Your task to perform on an android device: What's the weather going to be this weekend? Image 0: 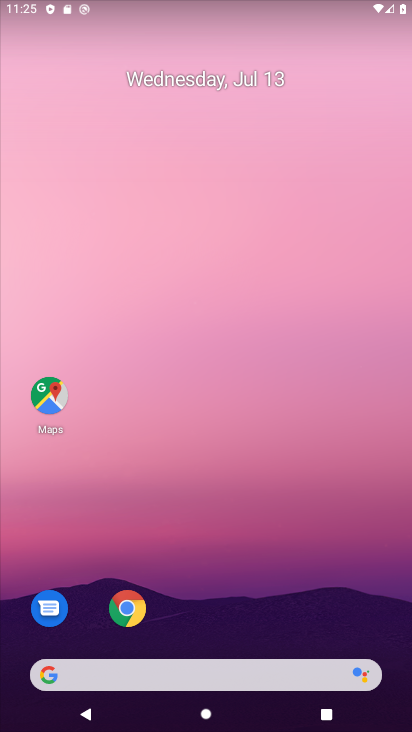
Step 0: click (161, 40)
Your task to perform on an android device: What's the weather going to be this weekend? Image 1: 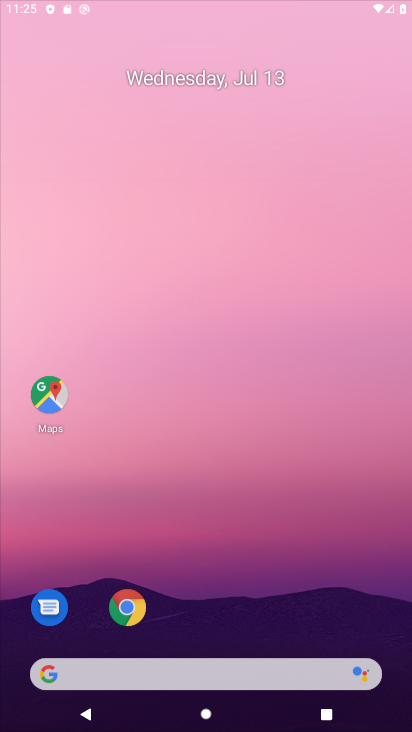
Step 1: drag from (187, 615) to (216, 95)
Your task to perform on an android device: What's the weather going to be this weekend? Image 2: 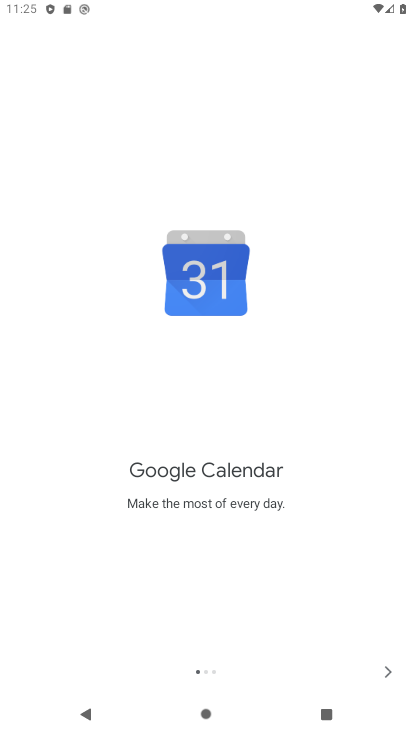
Step 2: press home button
Your task to perform on an android device: What's the weather going to be this weekend? Image 3: 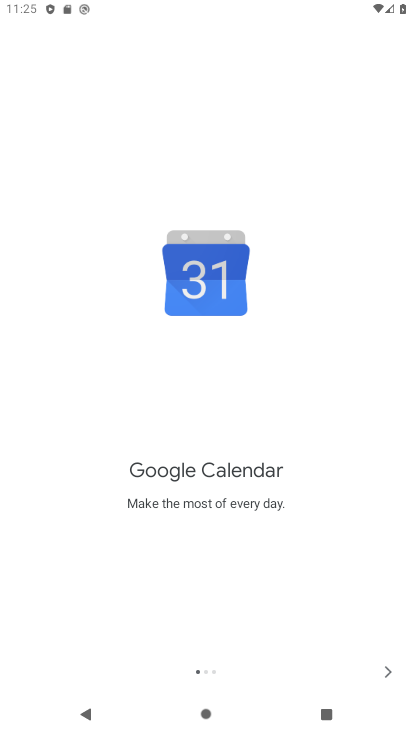
Step 3: press home button
Your task to perform on an android device: What's the weather going to be this weekend? Image 4: 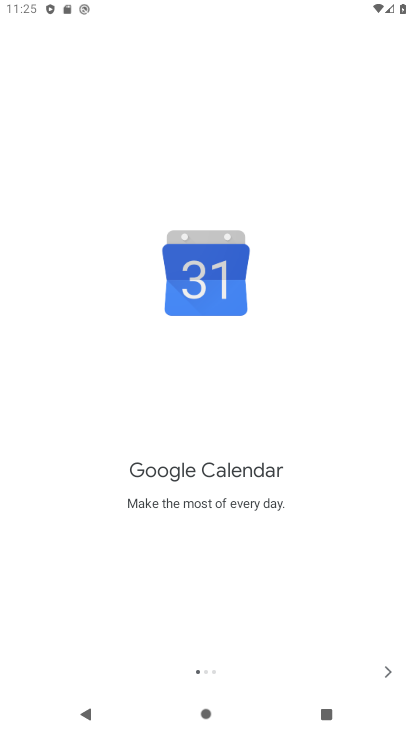
Step 4: click (230, 189)
Your task to perform on an android device: What's the weather going to be this weekend? Image 5: 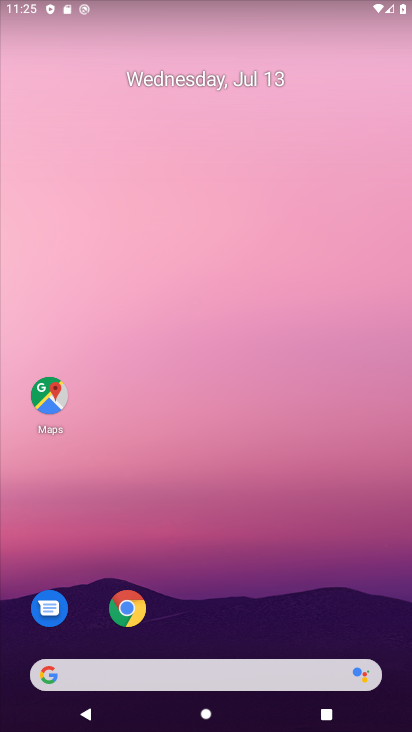
Step 5: drag from (209, 651) to (236, 194)
Your task to perform on an android device: What's the weather going to be this weekend? Image 6: 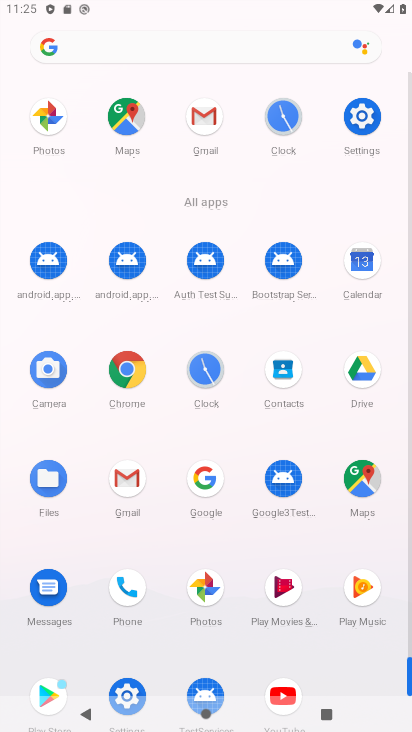
Step 6: drag from (239, 641) to (241, 219)
Your task to perform on an android device: What's the weather going to be this weekend? Image 7: 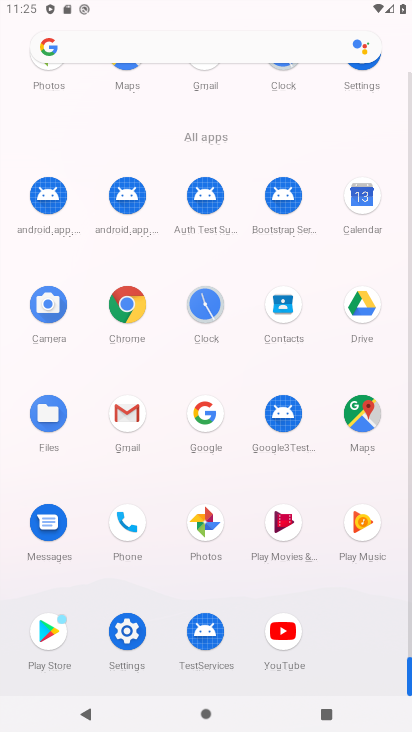
Step 7: click (200, 307)
Your task to perform on an android device: What's the weather going to be this weekend? Image 8: 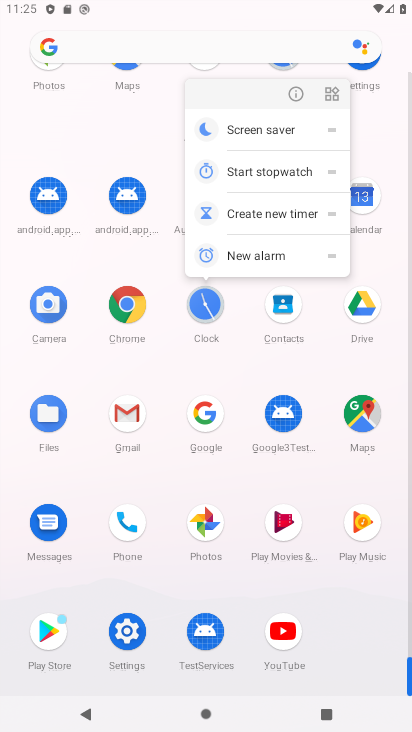
Step 8: click (291, 93)
Your task to perform on an android device: What's the weather going to be this weekend? Image 9: 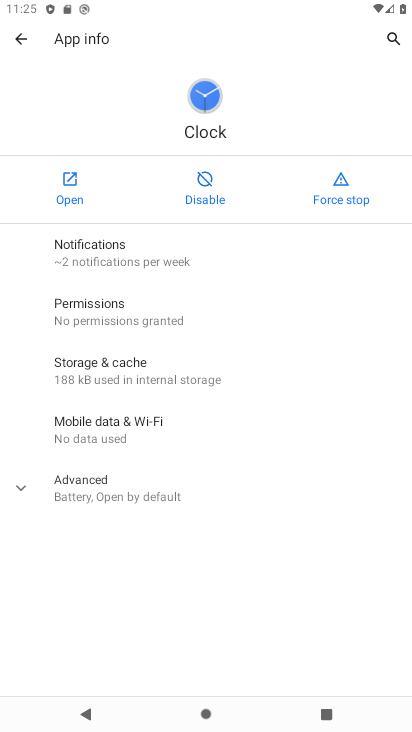
Step 9: click (65, 187)
Your task to perform on an android device: What's the weather going to be this weekend? Image 10: 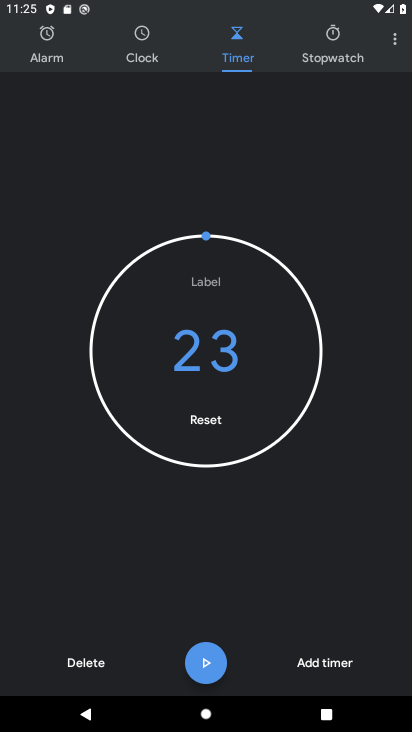
Step 10: click (398, 43)
Your task to perform on an android device: What's the weather going to be this weekend? Image 11: 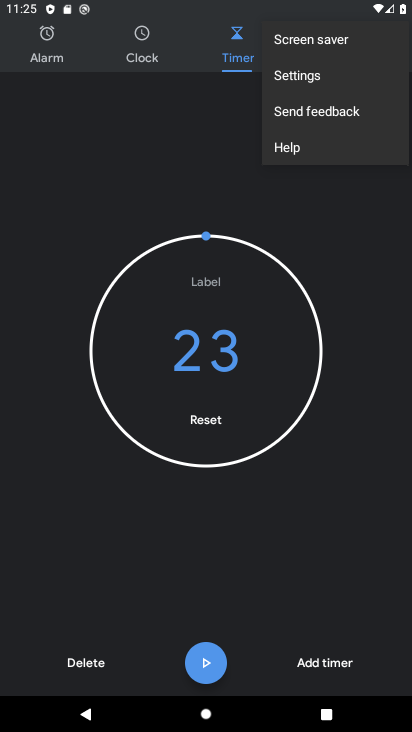
Step 11: click (326, 70)
Your task to perform on an android device: What's the weather going to be this weekend? Image 12: 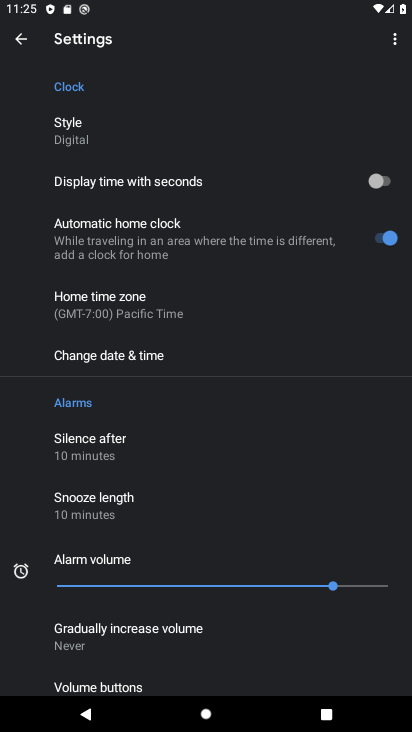
Step 12: press home button
Your task to perform on an android device: What's the weather going to be this weekend? Image 13: 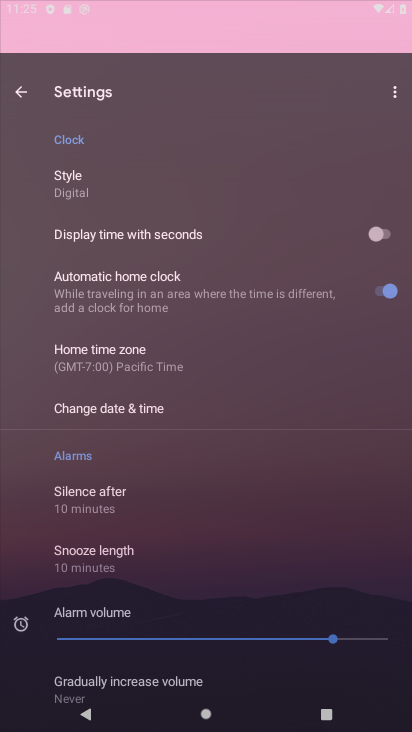
Step 13: drag from (223, 519) to (244, 255)
Your task to perform on an android device: What's the weather going to be this weekend? Image 14: 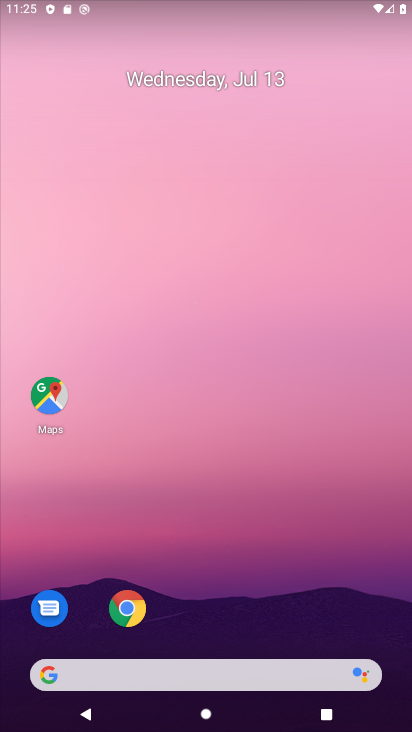
Step 14: drag from (238, 500) to (305, 123)
Your task to perform on an android device: What's the weather going to be this weekend? Image 15: 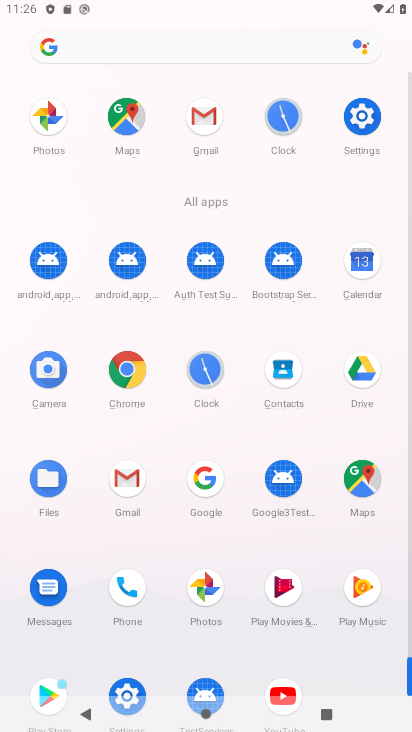
Step 15: click (194, 47)
Your task to perform on an android device: What's the weather going to be this weekend? Image 16: 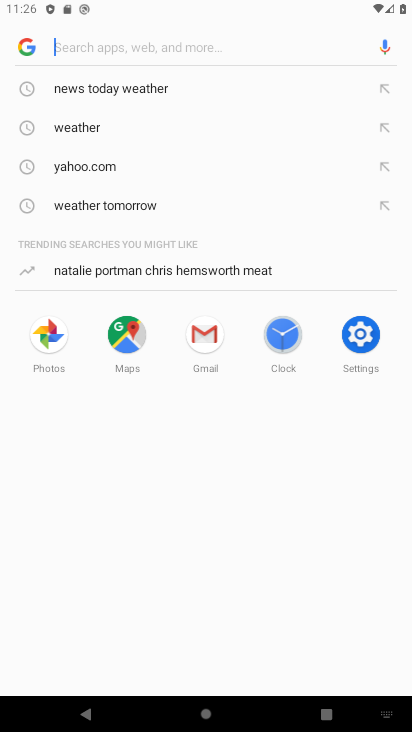
Step 16: type "What's the weather going to be this weekend?"
Your task to perform on an android device: What's the weather going to be this weekend? Image 17: 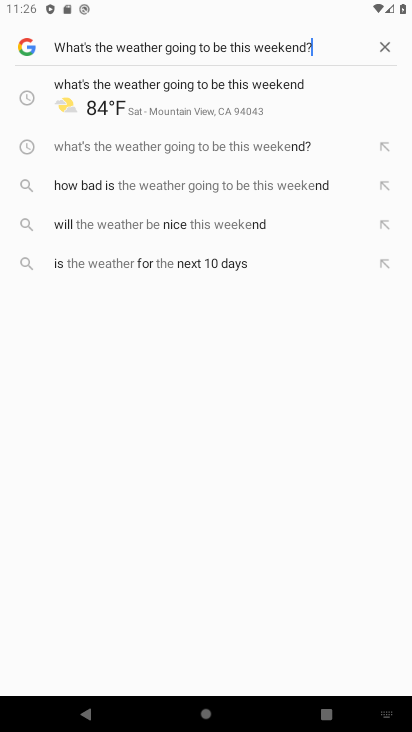
Step 17: type ""
Your task to perform on an android device: What's the weather going to be this weekend? Image 18: 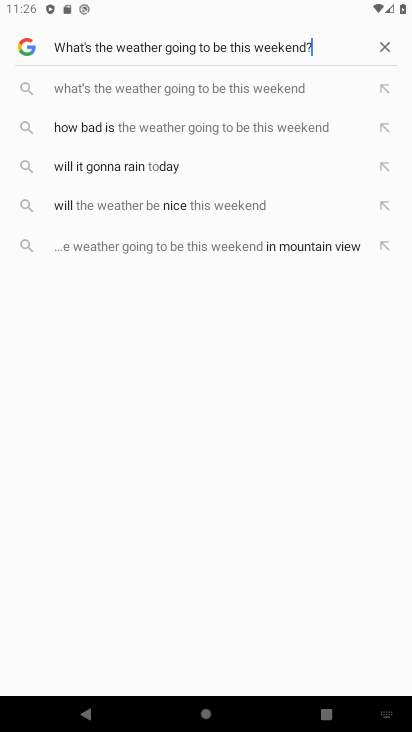
Step 18: click (188, 89)
Your task to perform on an android device: What's the weather going to be this weekend? Image 19: 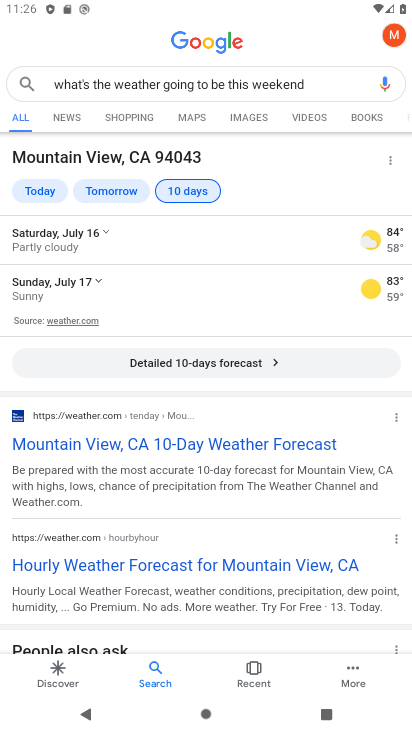
Step 19: task complete